Your task to perform on an android device: Search for the best rated phone case for the iPhone 8. Image 0: 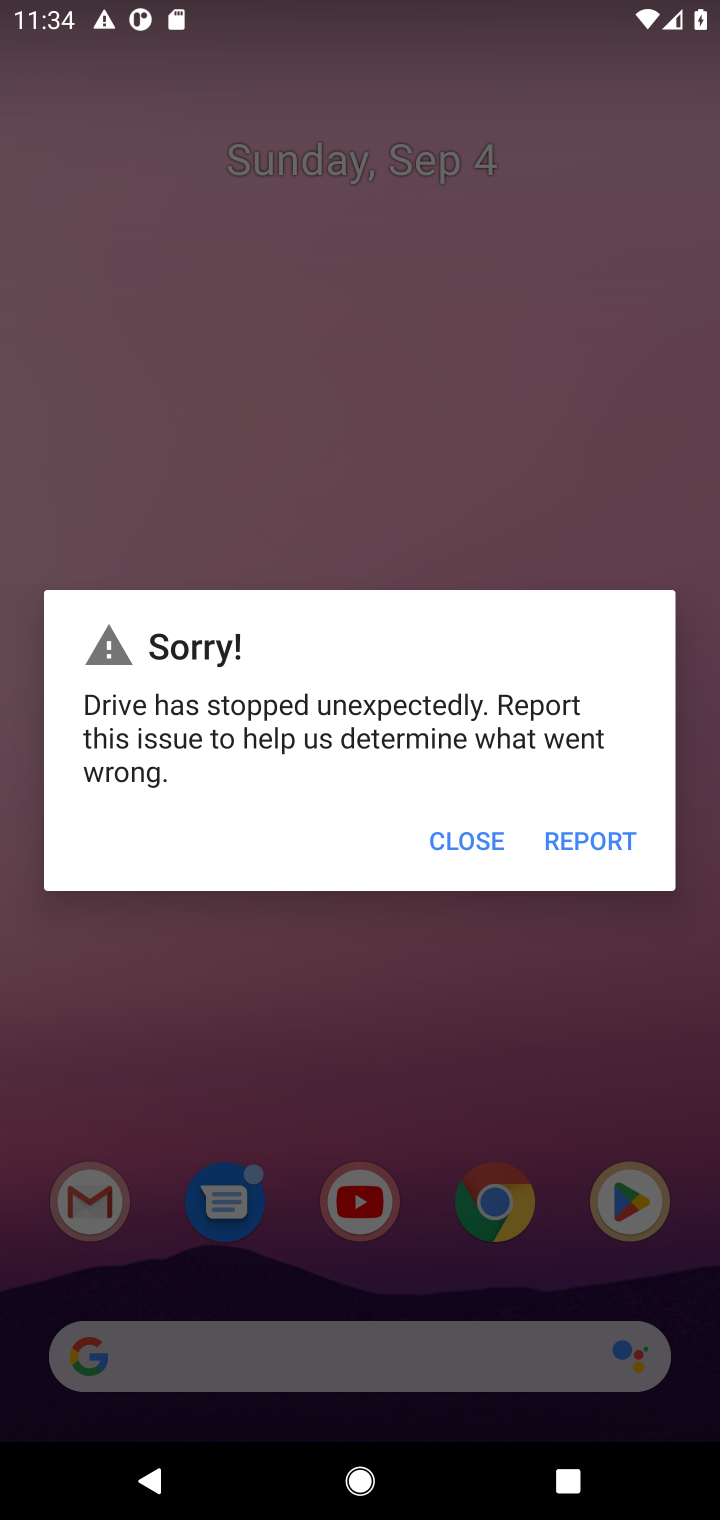
Step 0: press home button
Your task to perform on an android device: Search for the best rated phone case for the iPhone 8. Image 1: 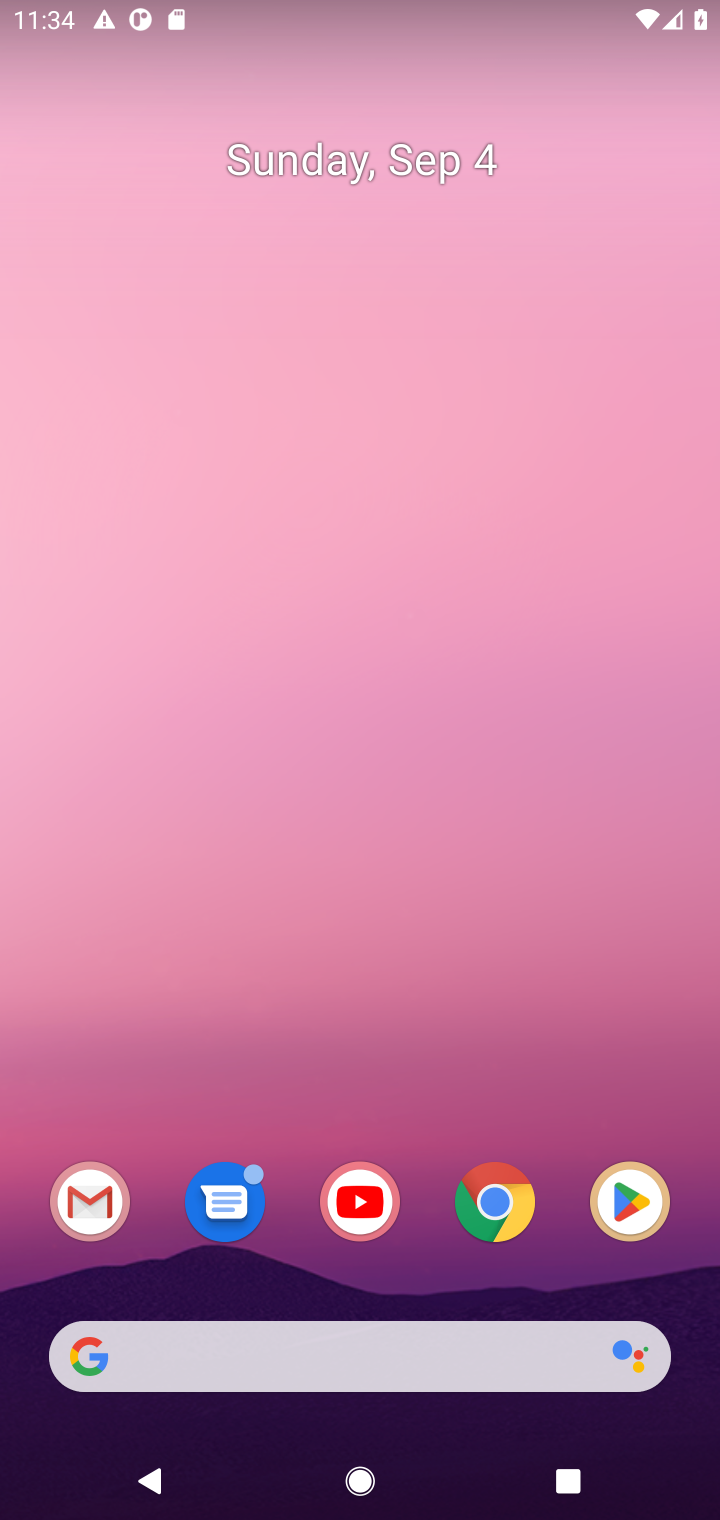
Step 1: press home button
Your task to perform on an android device: Search for the best rated phone case for the iPhone 8. Image 2: 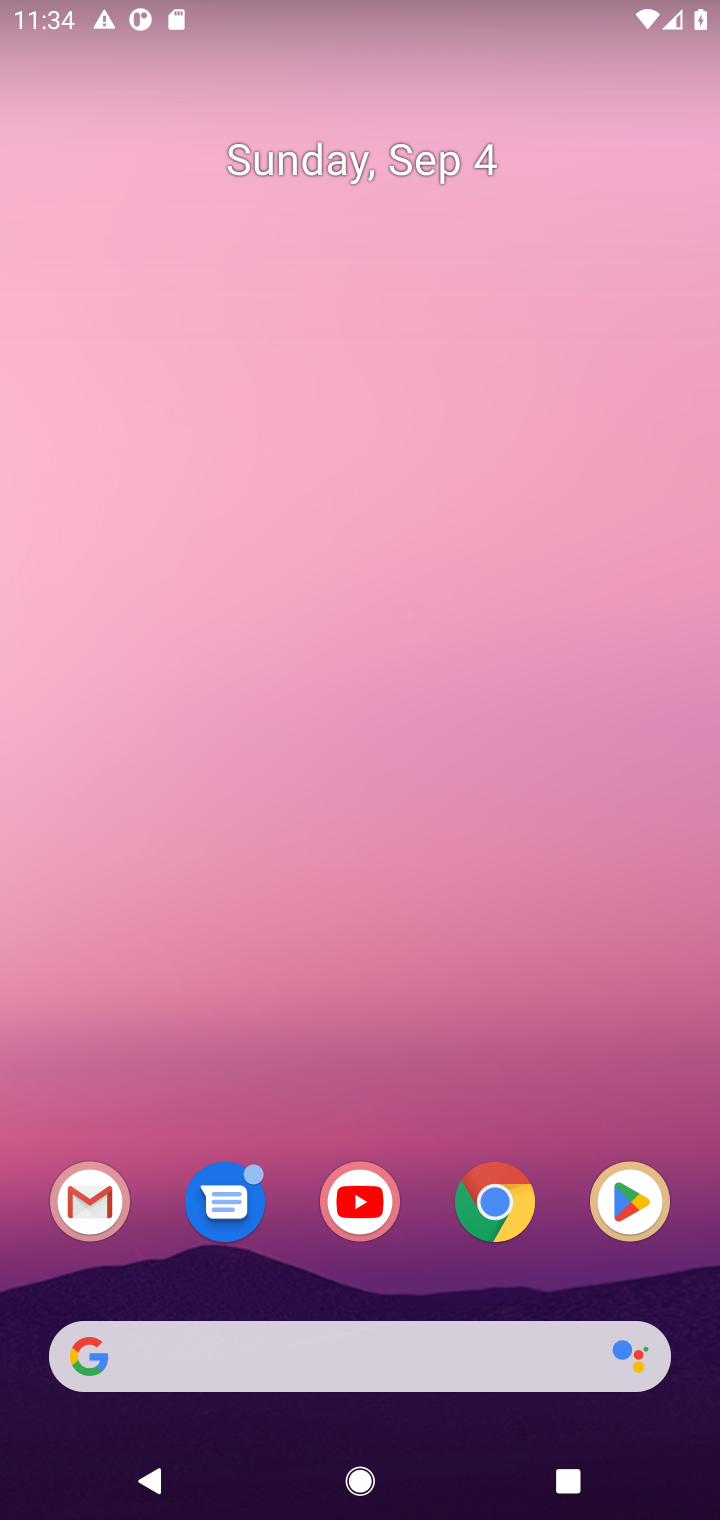
Step 2: drag from (364, 686) to (511, 39)
Your task to perform on an android device: Search for the best rated phone case for the iPhone 8. Image 3: 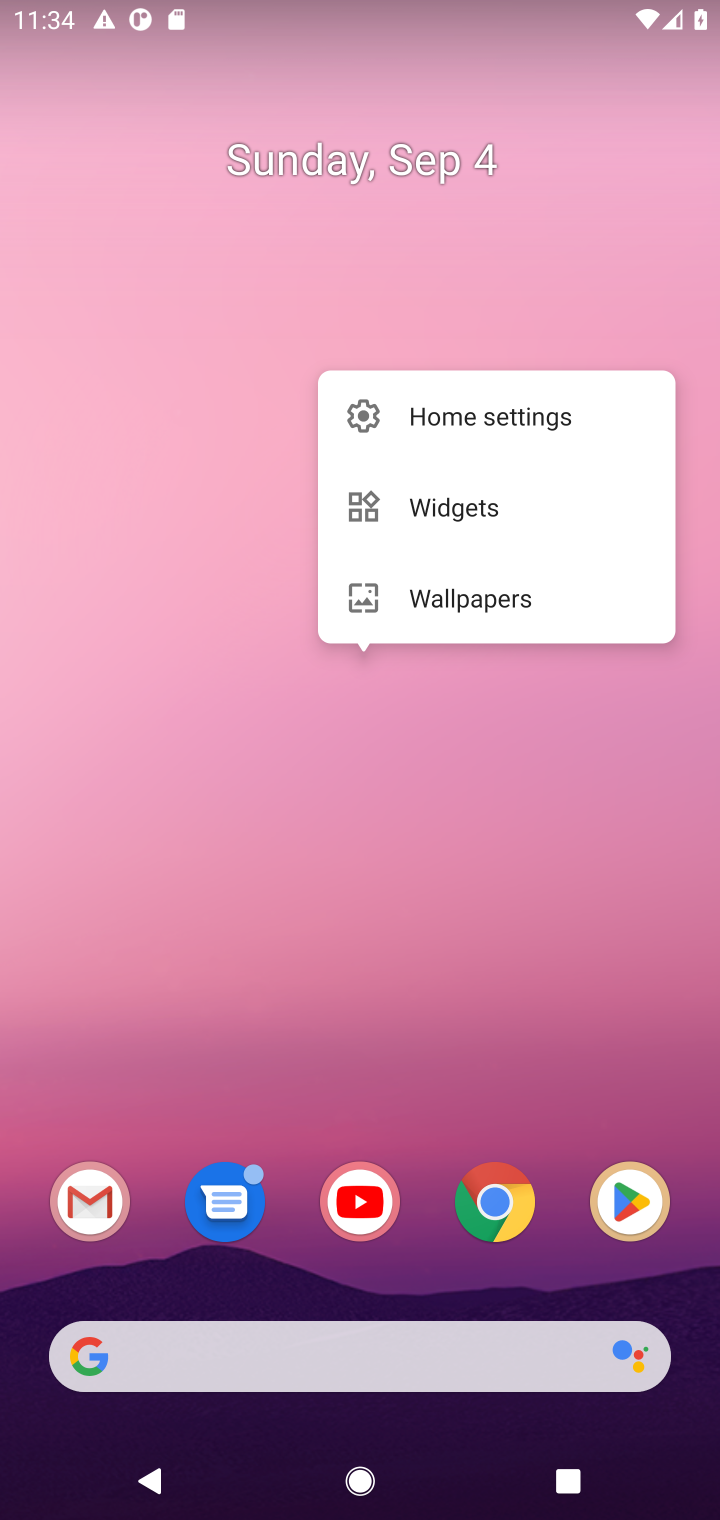
Step 3: drag from (294, 1086) to (331, 1000)
Your task to perform on an android device: Search for the best rated phone case for the iPhone 8. Image 4: 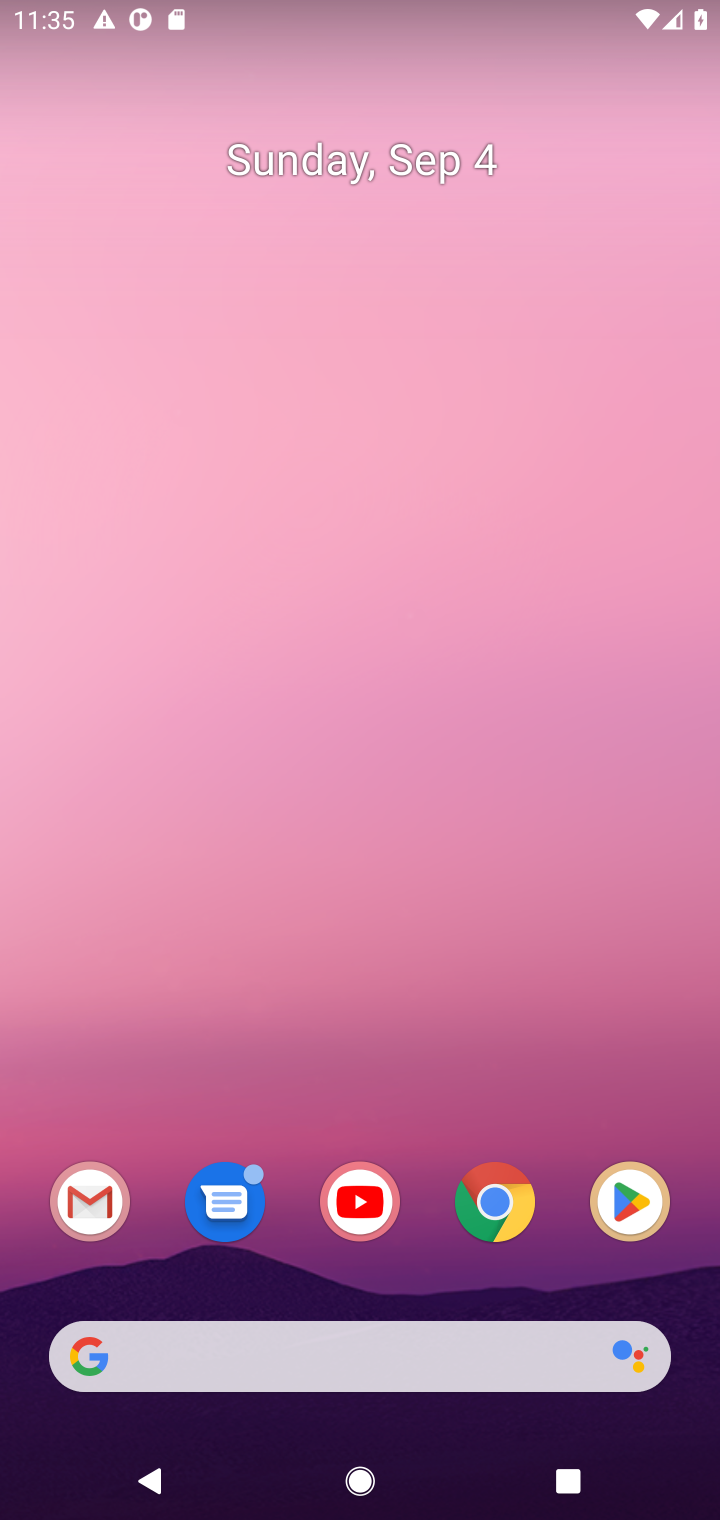
Step 4: click (377, 266)
Your task to perform on an android device: Search for the best rated phone case for the iPhone 8. Image 5: 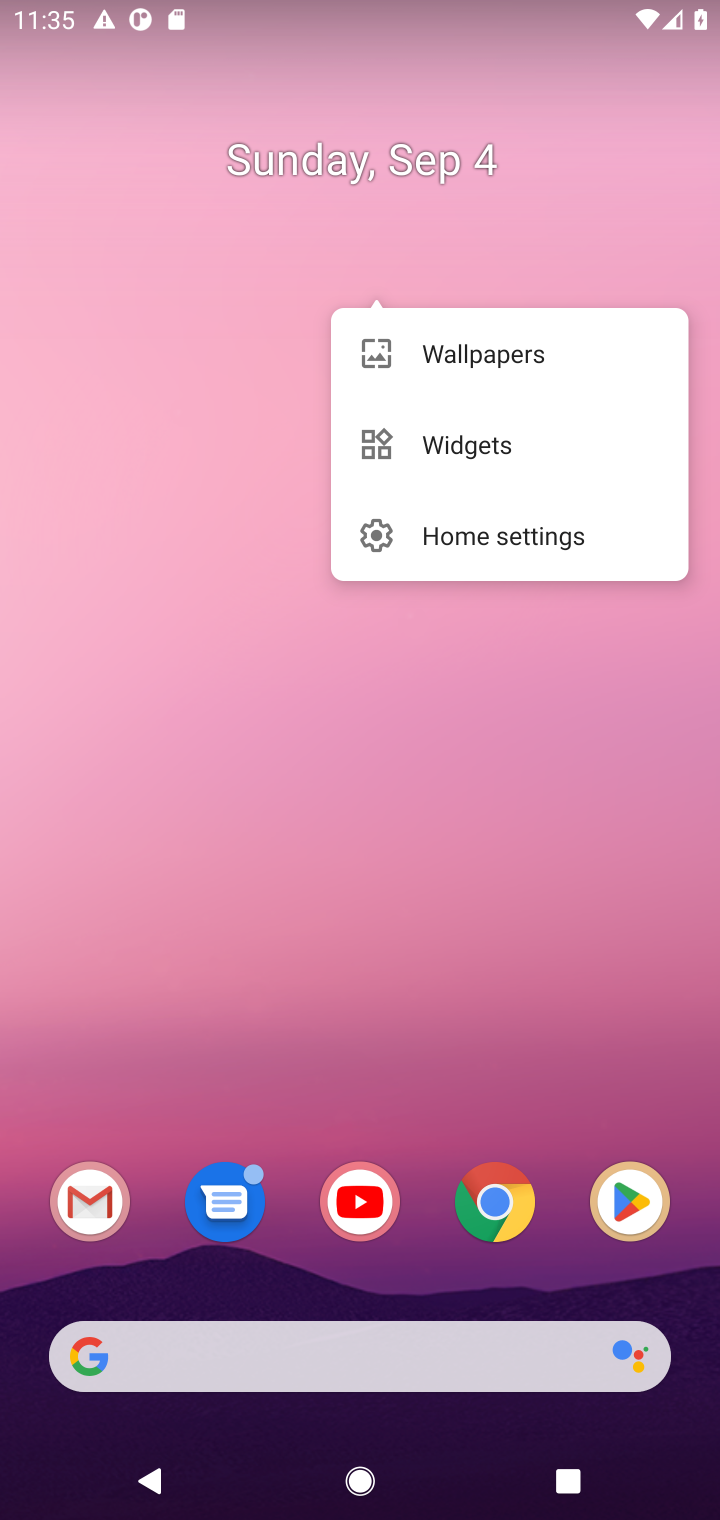
Step 5: click (259, 860)
Your task to perform on an android device: Search for the best rated phone case for the iPhone 8. Image 6: 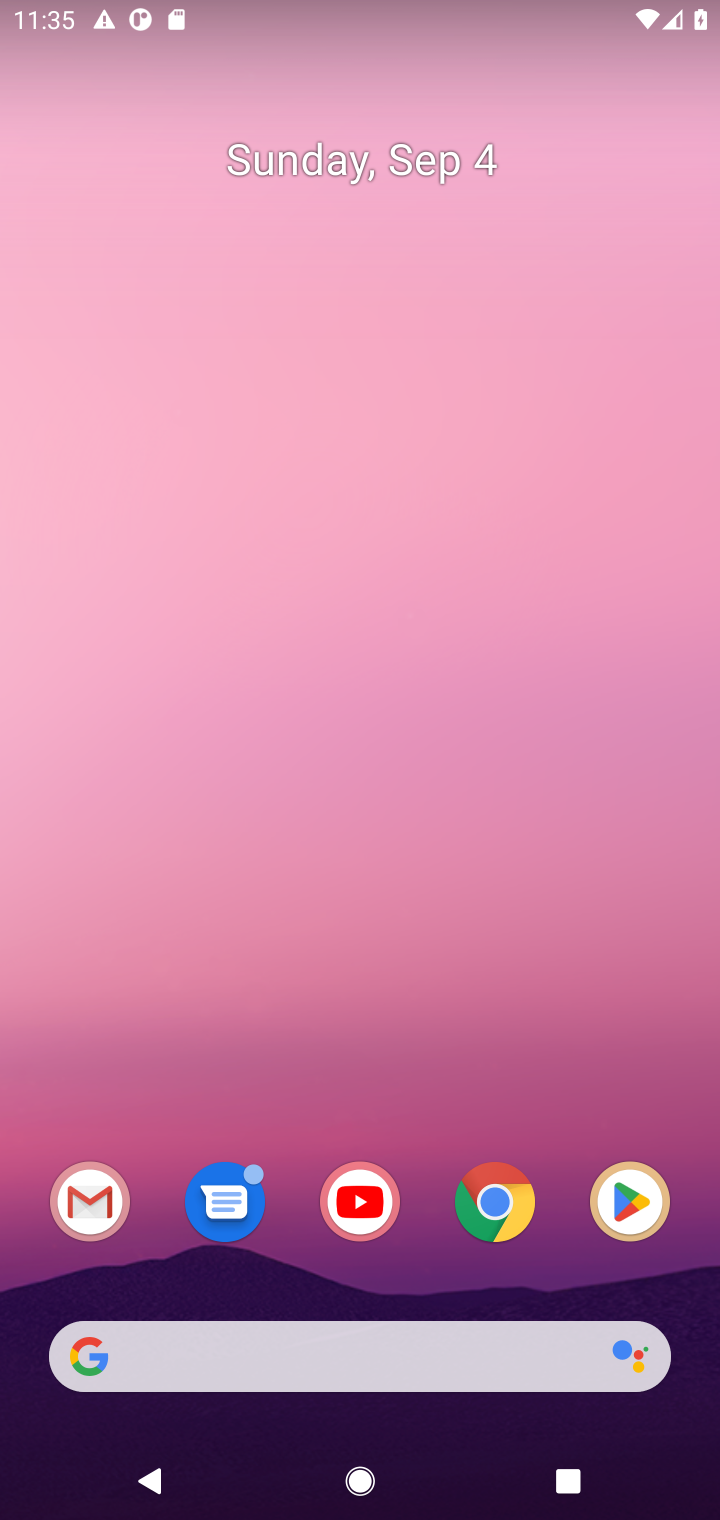
Step 6: drag from (426, 1252) to (572, 90)
Your task to perform on an android device: Search for the best rated phone case for the iPhone 8. Image 7: 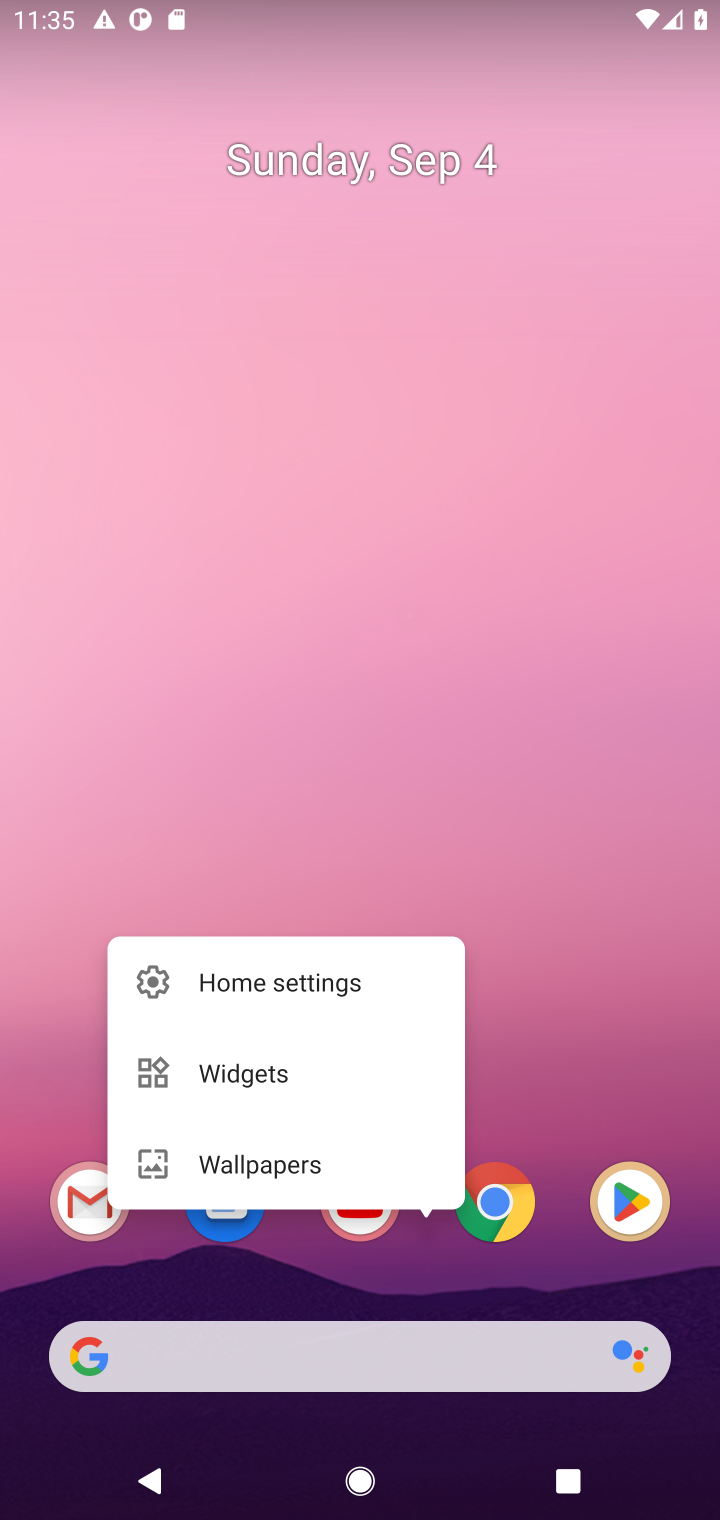
Step 7: click (511, 589)
Your task to perform on an android device: Search for the best rated phone case for the iPhone 8. Image 8: 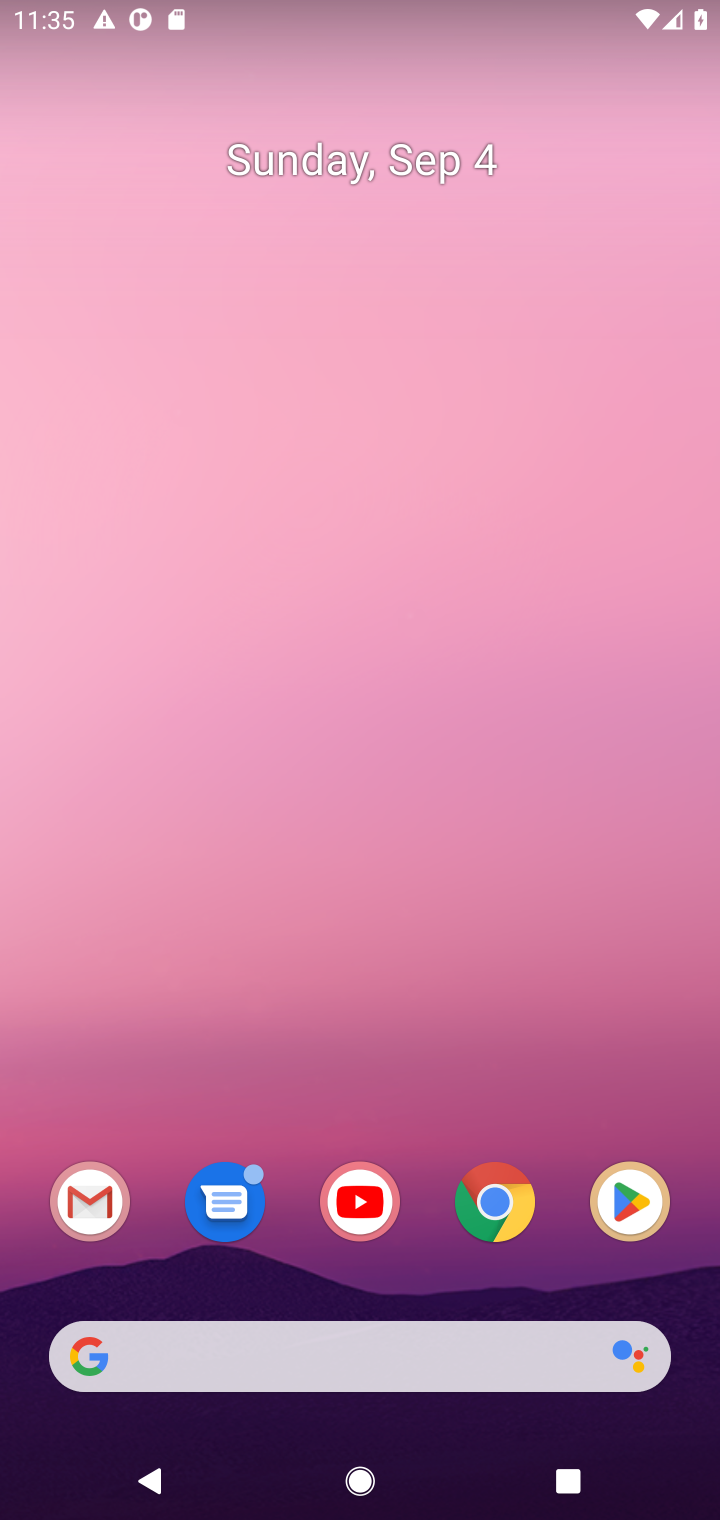
Step 8: drag from (472, 671) to (483, 140)
Your task to perform on an android device: Search for the best rated phone case for the iPhone 8. Image 9: 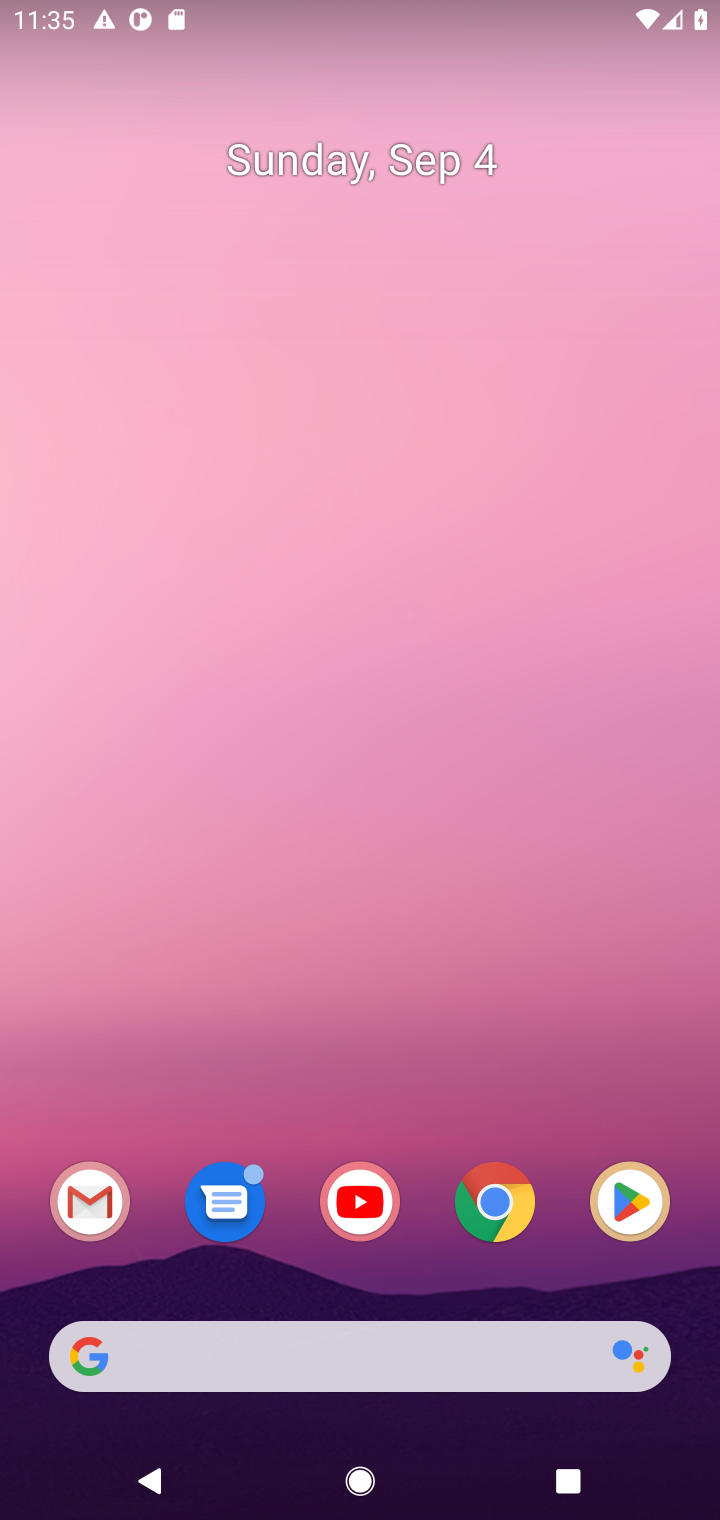
Step 9: drag from (431, 1236) to (458, 21)
Your task to perform on an android device: Search for the best rated phone case for the iPhone 8. Image 10: 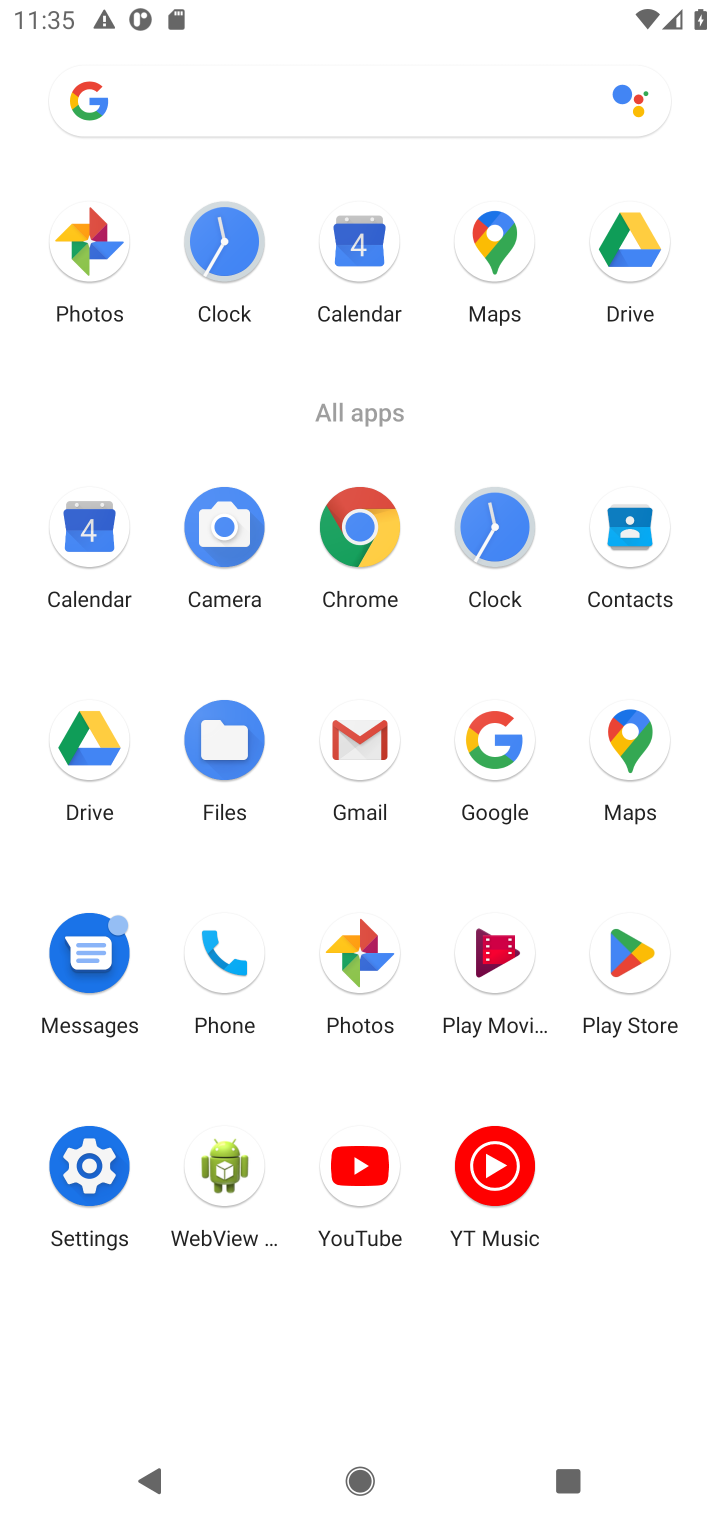
Step 10: click (352, 528)
Your task to perform on an android device: Search for the best rated phone case for the iPhone 8. Image 11: 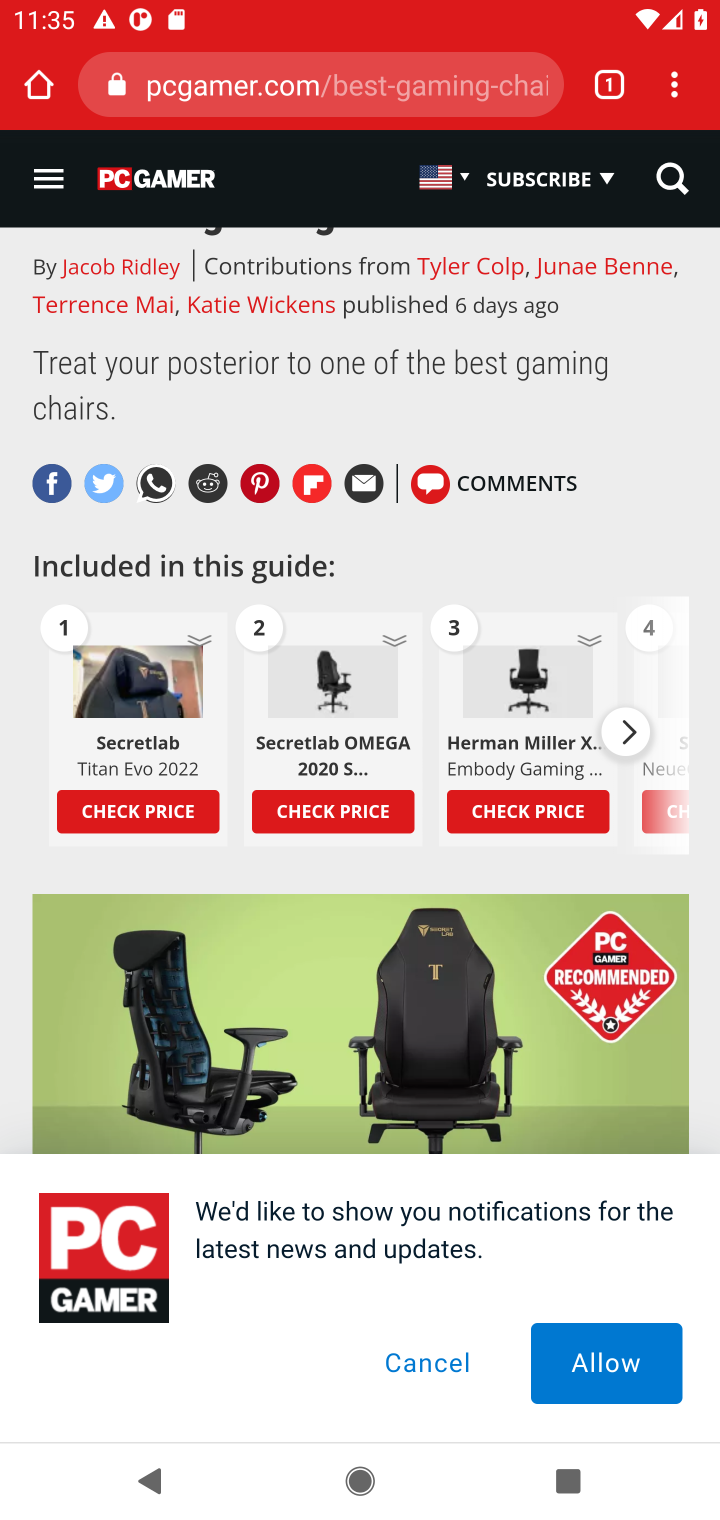
Step 11: click (243, 69)
Your task to perform on an android device: Search for the best rated phone case for the iPhone 8. Image 12: 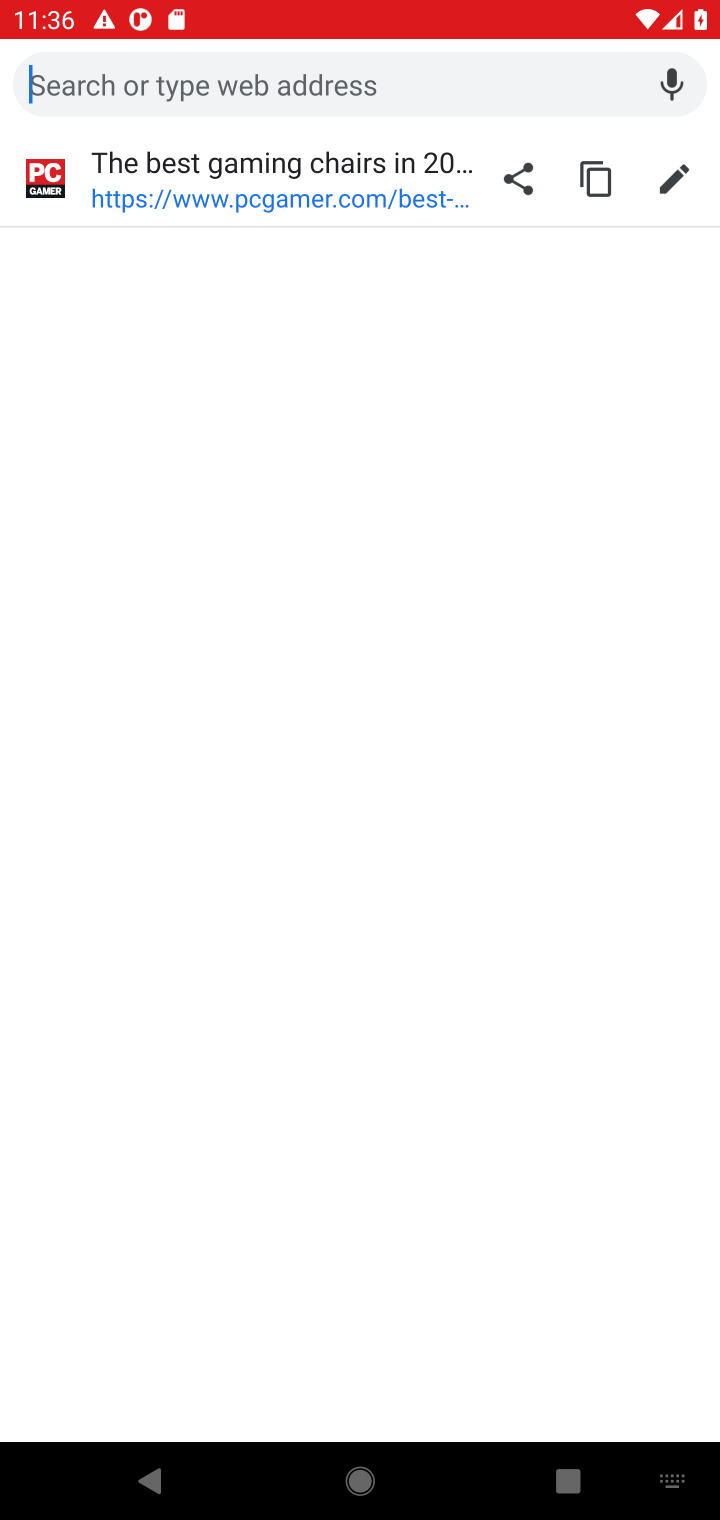
Step 12: type "the best rated phone case for the iphone 8"
Your task to perform on an android device: Search for the best rated phone case for the iPhone 8. Image 13: 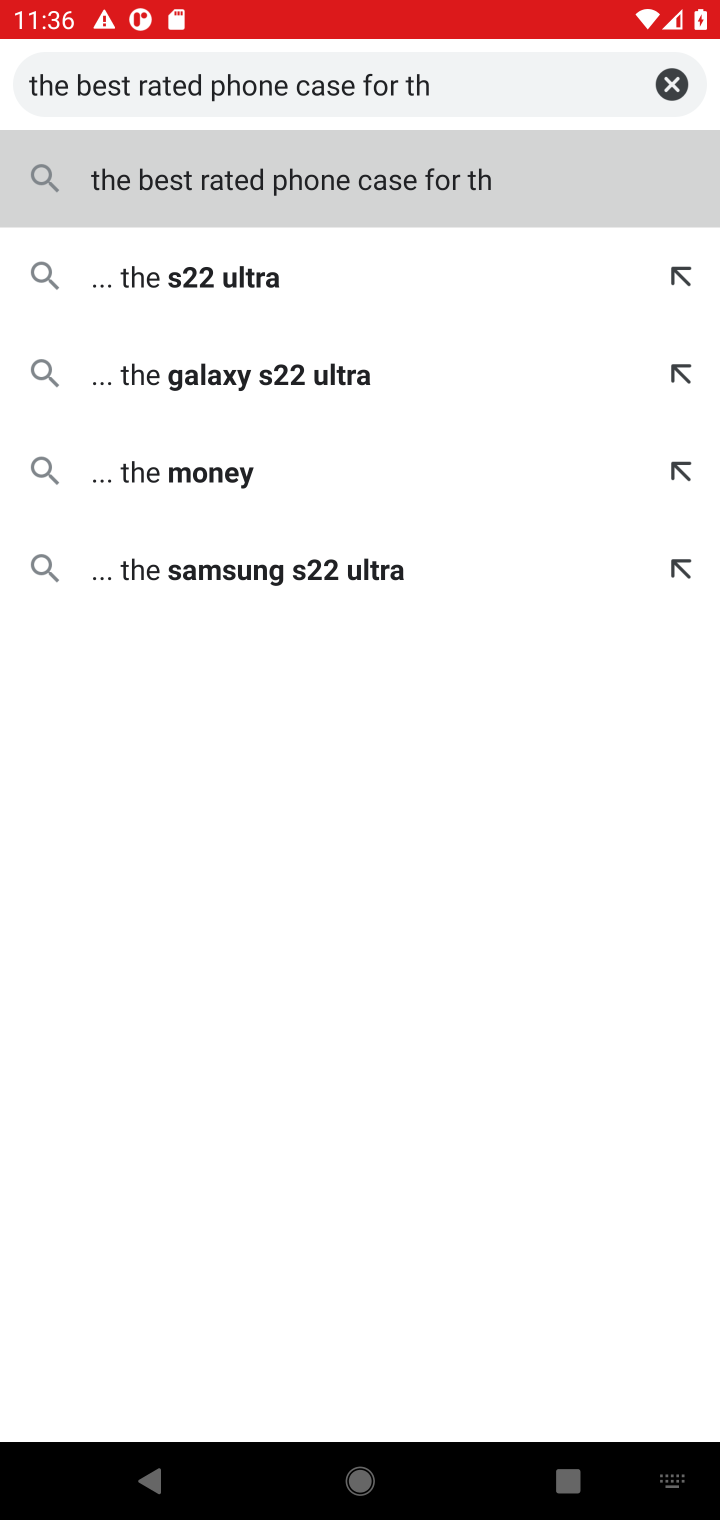
Step 13: type "e iphone 8"
Your task to perform on an android device: Search for the best rated phone case for the iPhone 8. Image 14: 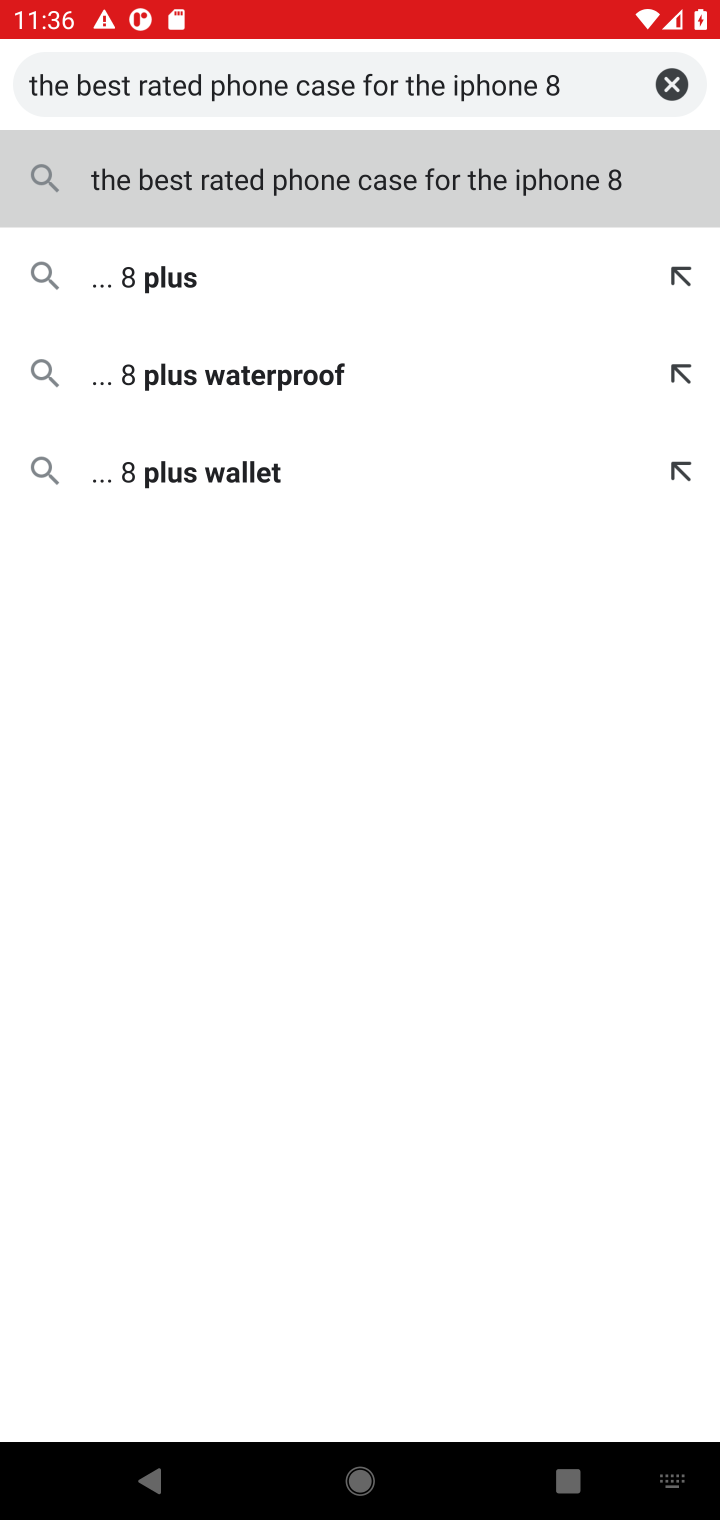
Step 14: press enter
Your task to perform on an android device: Search for the best rated phone case for the iPhone 8. Image 15: 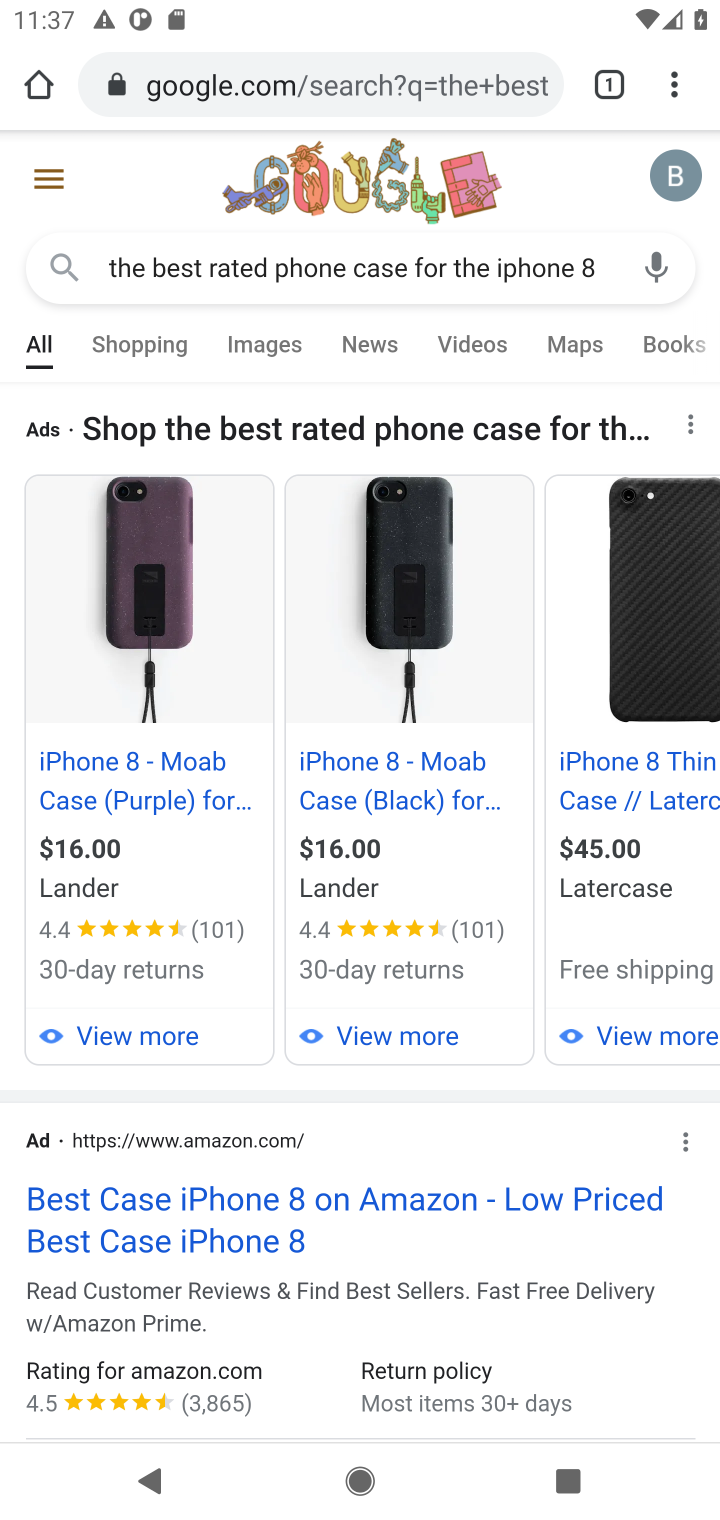
Step 15: drag from (498, 408) to (501, 309)
Your task to perform on an android device: Search for the best rated phone case for the iPhone 8. Image 16: 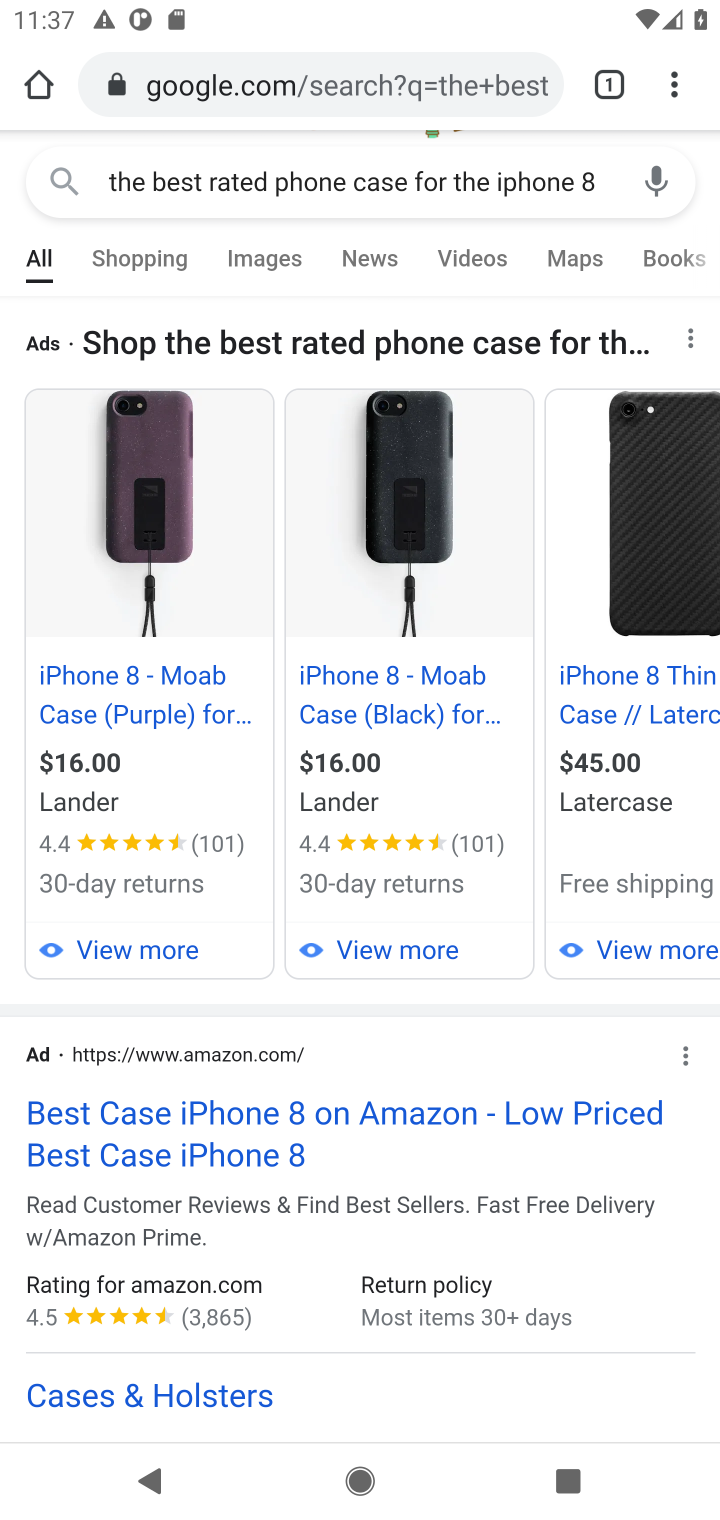
Step 16: drag from (399, 1038) to (458, 100)
Your task to perform on an android device: Search for the best rated phone case for the iPhone 8. Image 17: 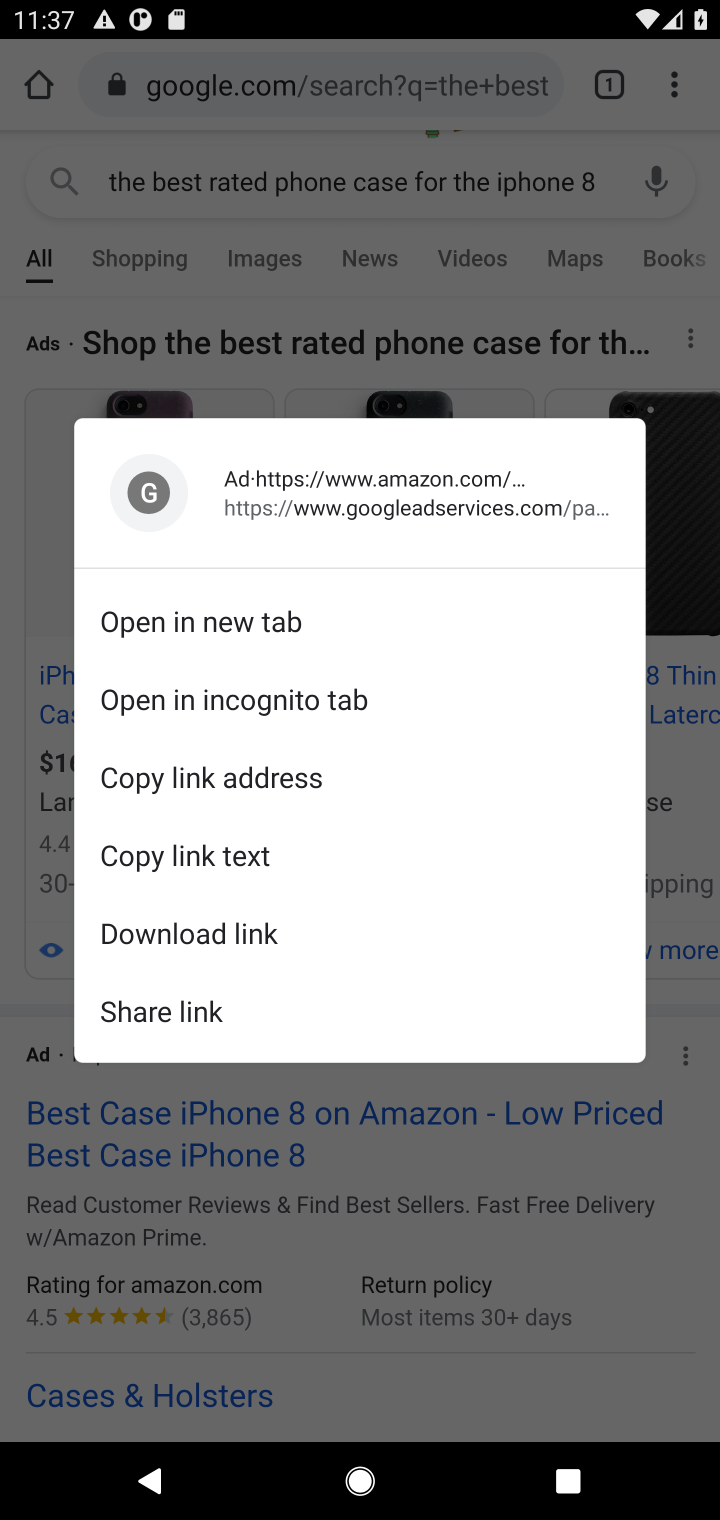
Step 17: click (492, 1142)
Your task to perform on an android device: Search for the best rated phone case for the iPhone 8. Image 18: 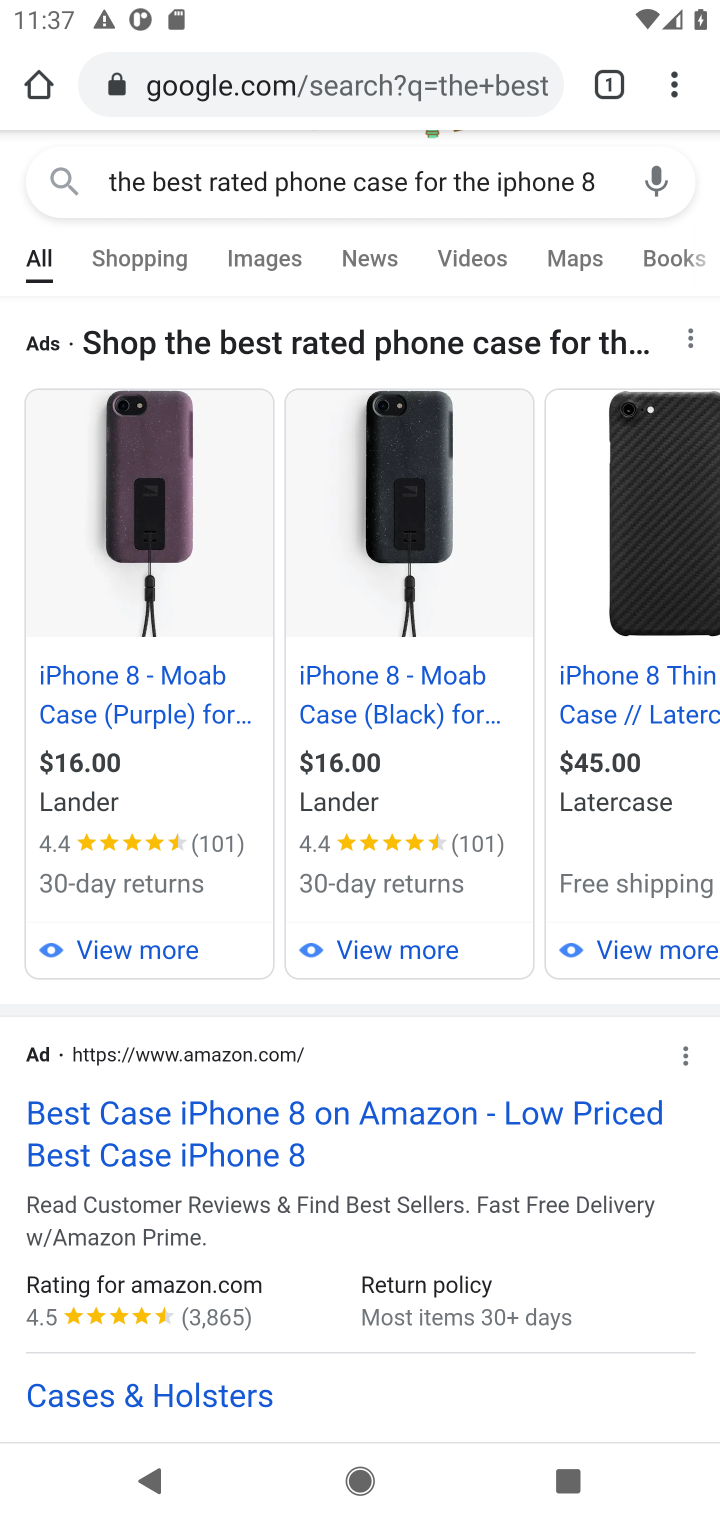
Step 18: drag from (683, 389) to (709, 544)
Your task to perform on an android device: Search for the best rated phone case for the iPhone 8. Image 19: 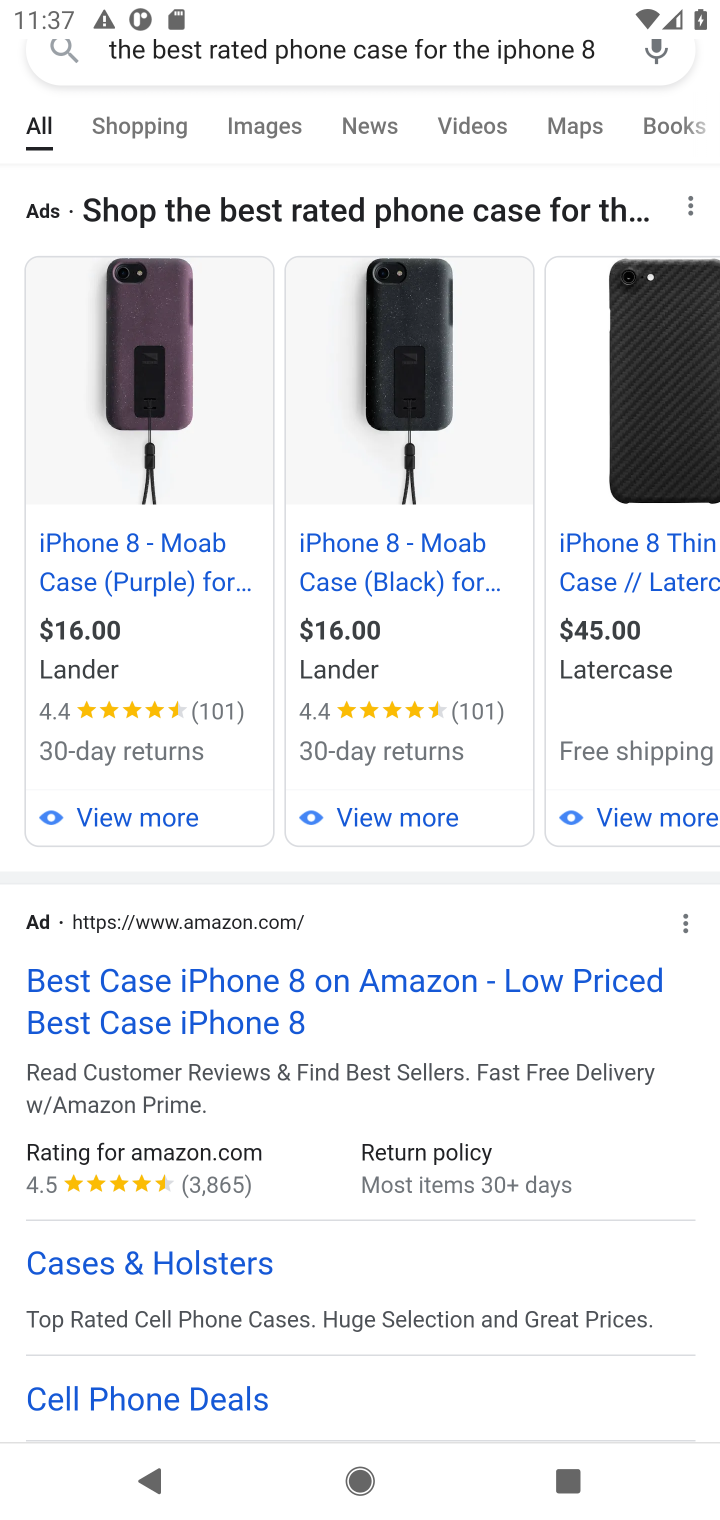
Step 19: click (644, 487)
Your task to perform on an android device: Search for the best rated phone case for the iPhone 8. Image 20: 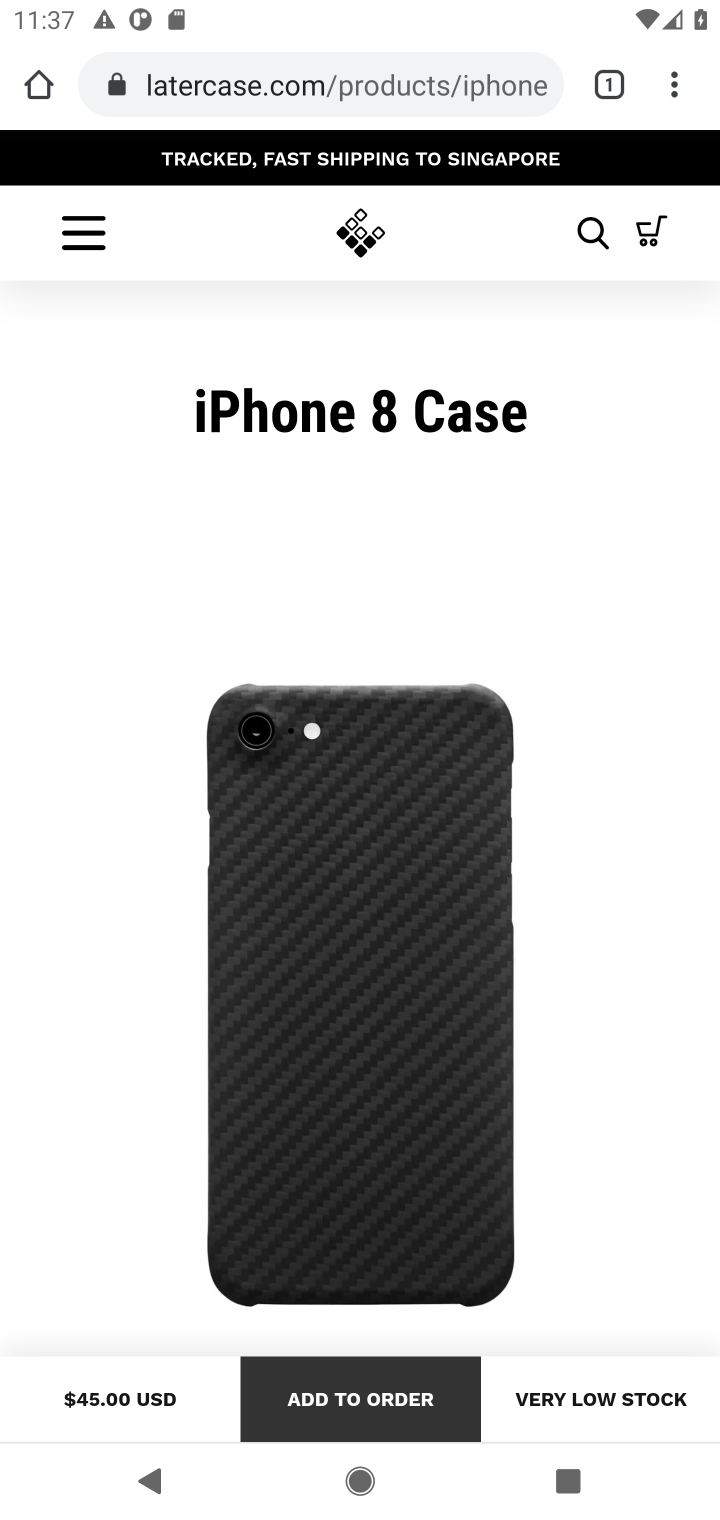
Step 20: task complete